Your task to perform on an android device: Open ESPN.com Image 0: 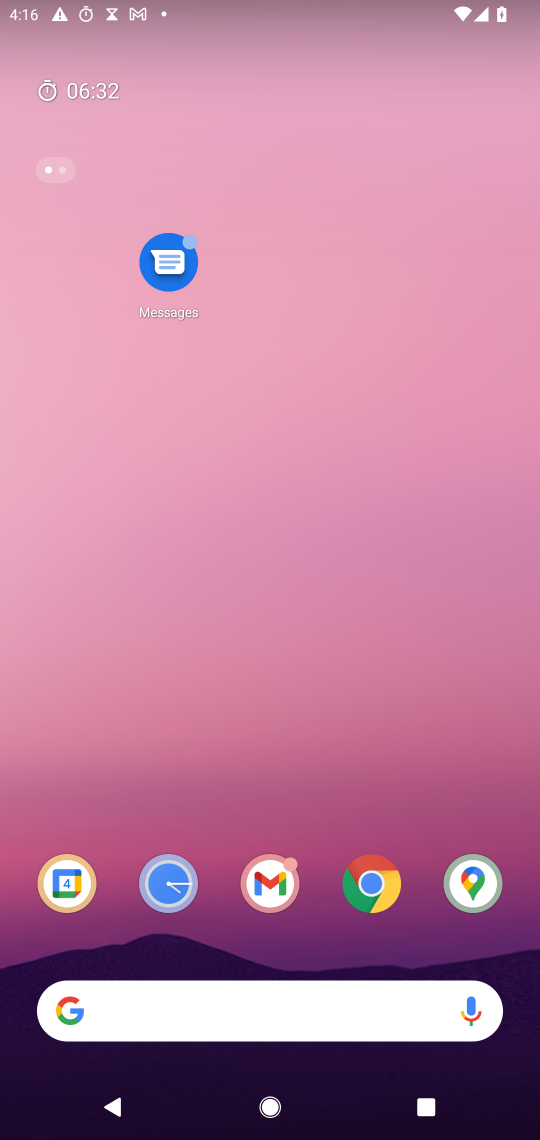
Step 0: click (371, 886)
Your task to perform on an android device: Open ESPN.com Image 1: 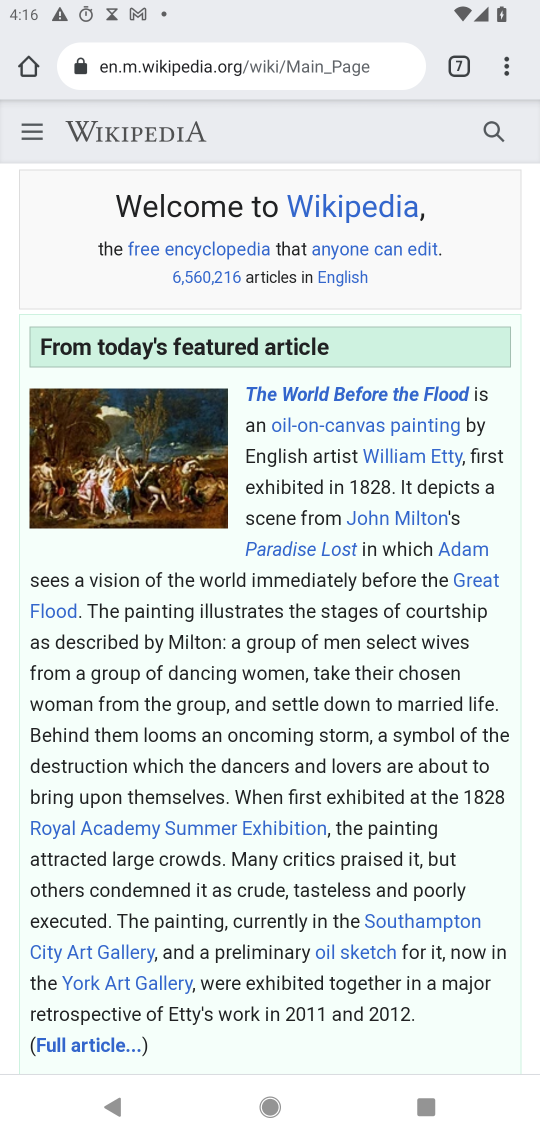
Step 1: click (509, 73)
Your task to perform on an android device: Open ESPN.com Image 2: 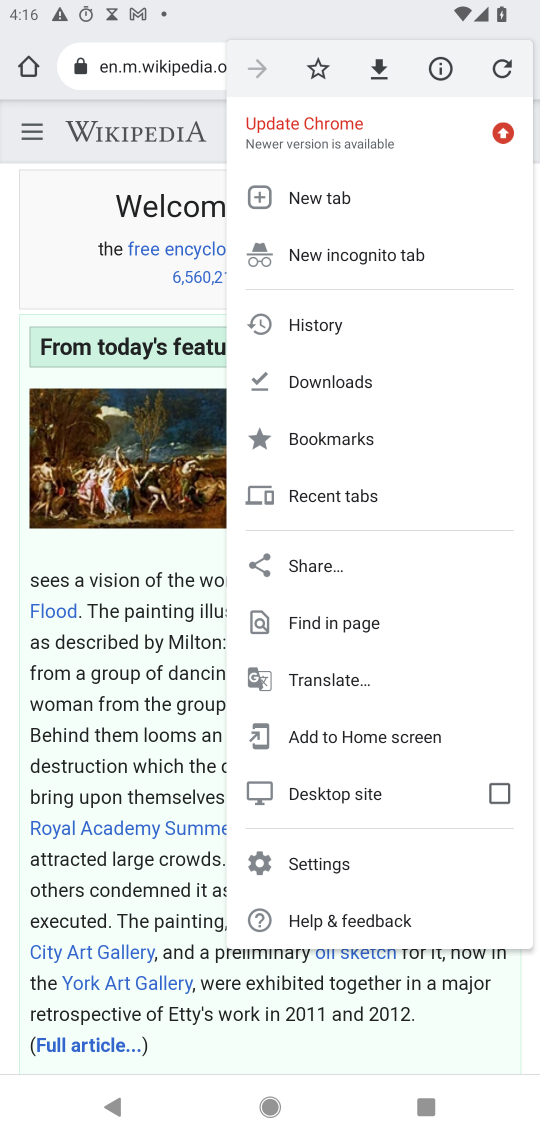
Step 2: click (310, 194)
Your task to perform on an android device: Open ESPN.com Image 3: 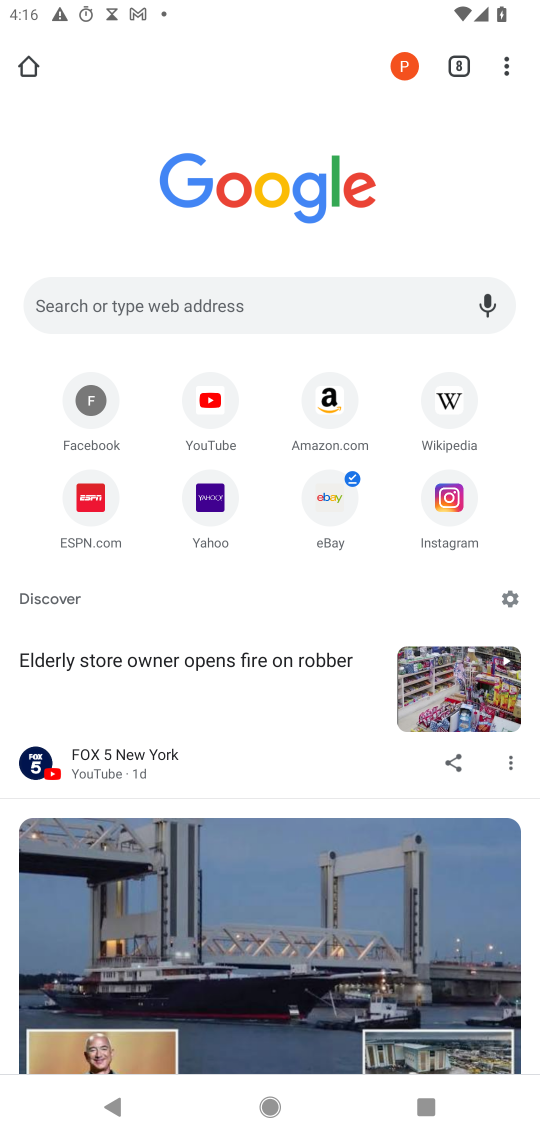
Step 3: click (90, 490)
Your task to perform on an android device: Open ESPN.com Image 4: 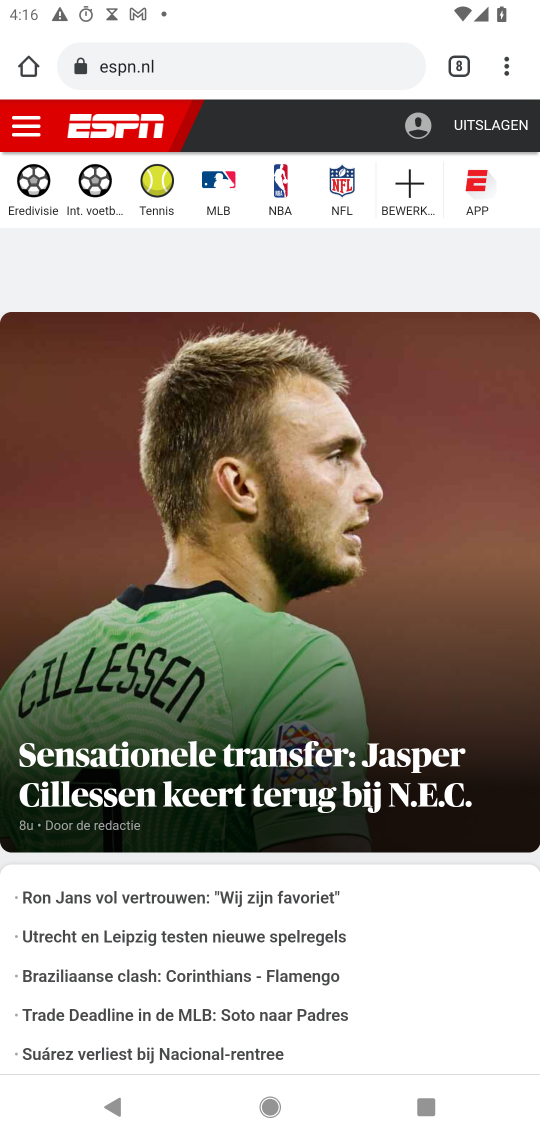
Step 4: task complete